Your task to perform on an android device: What's the weather today? Image 0: 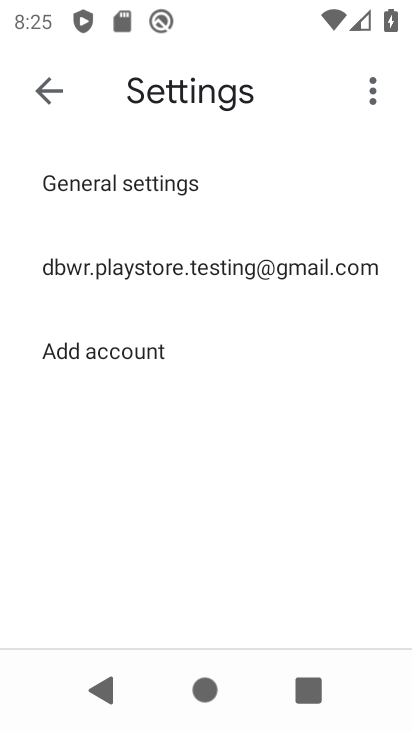
Step 0: press home button
Your task to perform on an android device: What's the weather today? Image 1: 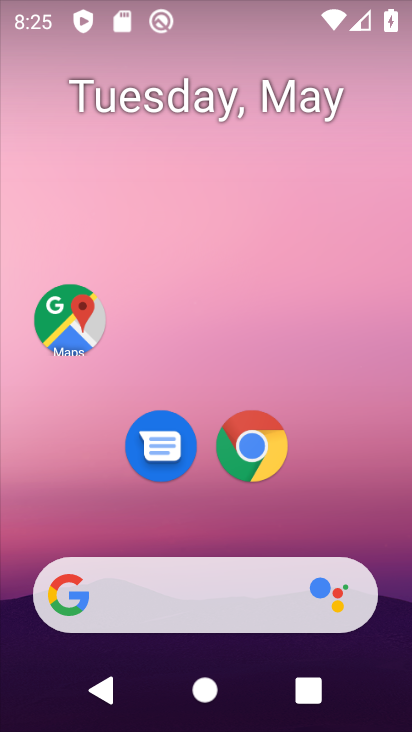
Step 1: click (125, 591)
Your task to perform on an android device: What's the weather today? Image 2: 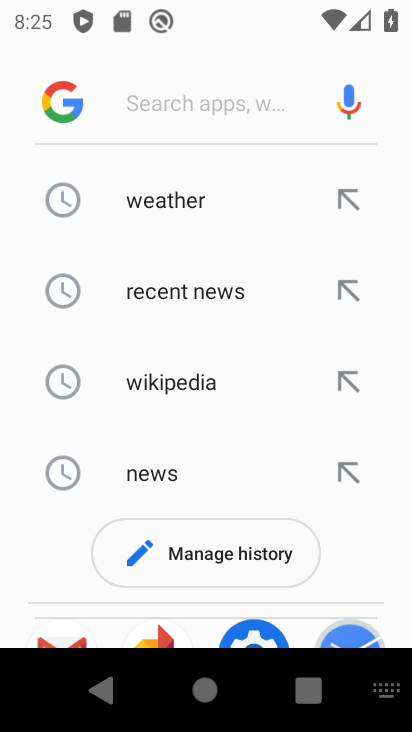
Step 2: click (140, 196)
Your task to perform on an android device: What's the weather today? Image 3: 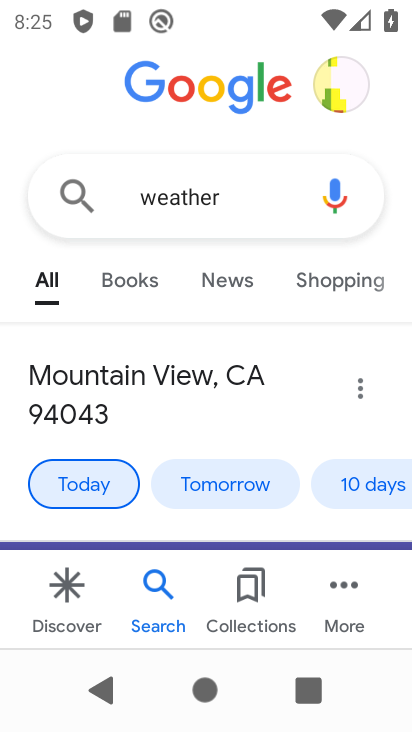
Step 3: task complete